Your task to perform on an android device: Go to Wikipedia Image 0: 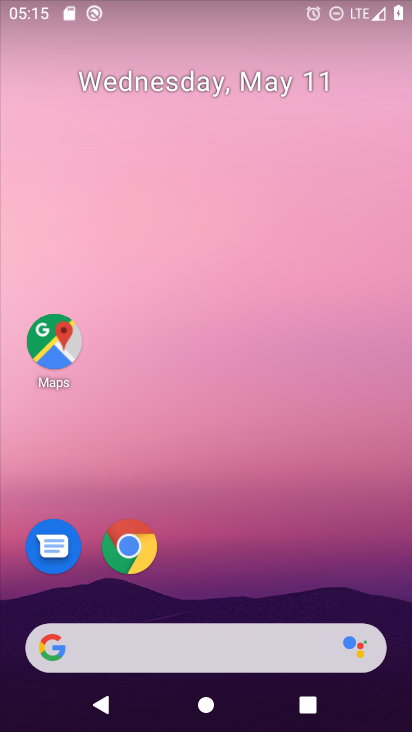
Step 0: drag from (246, 621) to (285, 22)
Your task to perform on an android device: Go to Wikipedia Image 1: 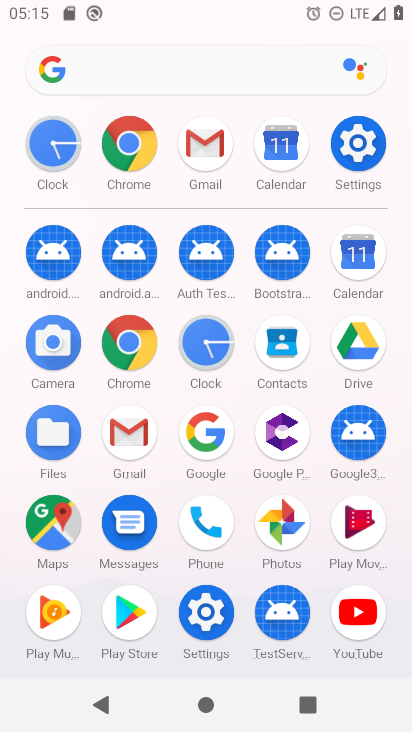
Step 1: click (140, 346)
Your task to perform on an android device: Go to Wikipedia Image 2: 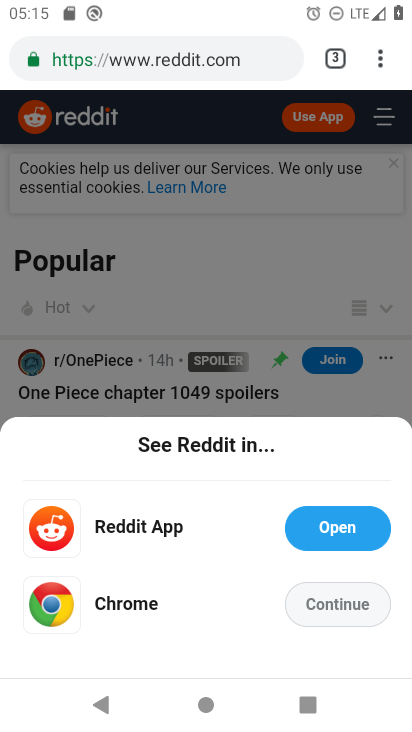
Step 2: click (206, 48)
Your task to perform on an android device: Go to Wikipedia Image 3: 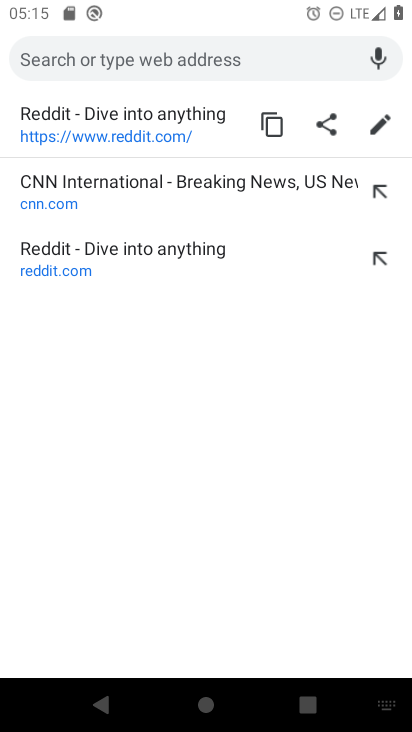
Step 3: type "wikipedia"
Your task to perform on an android device: Go to Wikipedia Image 4: 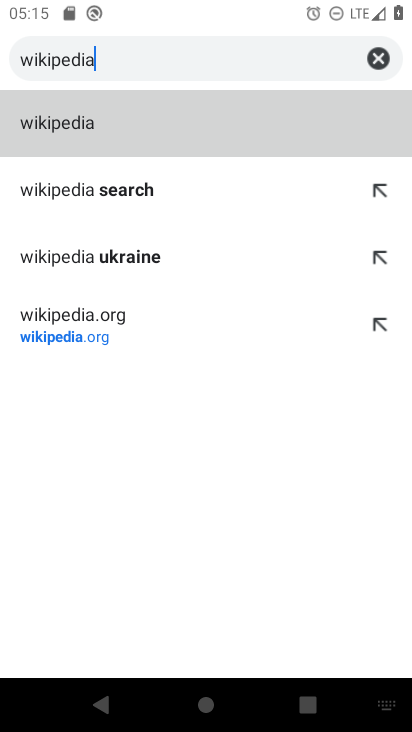
Step 4: click (116, 136)
Your task to perform on an android device: Go to Wikipedia Image 5: 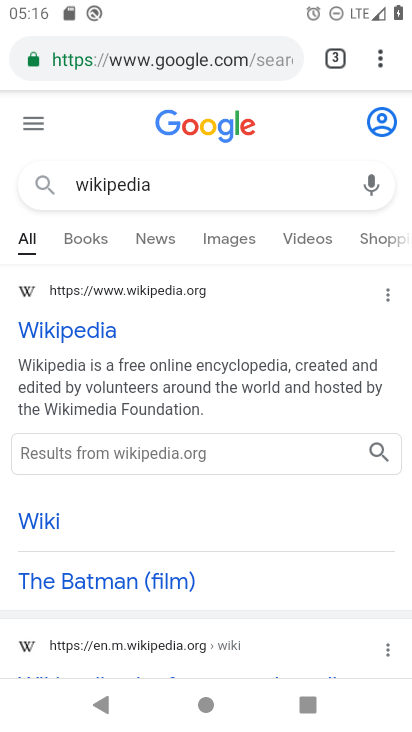
Step 5: task complete